Your task to perform on an android device: see tabs open on other devices in the chrome app Image 0: 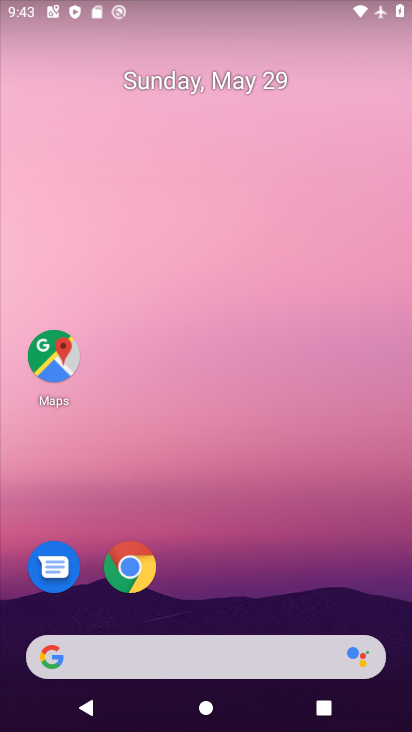
Step 0: click (129, 564)
Your task to perform on an android device: see tabs open on other devices in the chrome app Image 1: 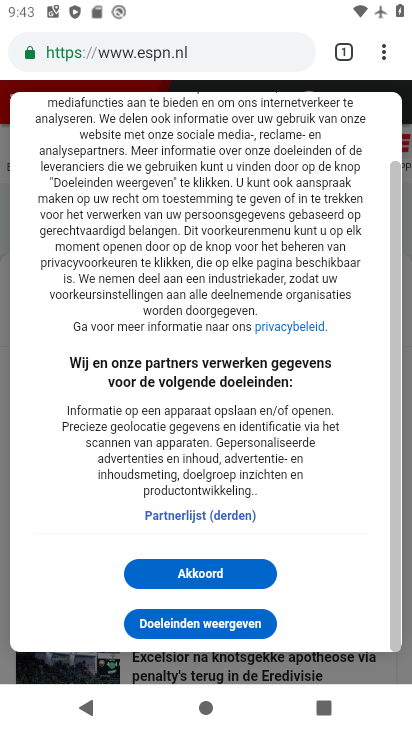
Step 1: click (383, 53)
Your task to perform on an android device: see tabs open on other devices in the chrome app Image 2: 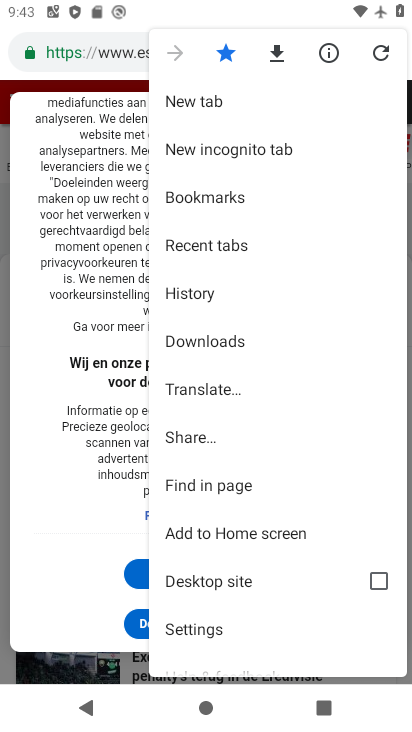
Step 2: click (211, 239)
Your task to perform on an android device: see tabs open on other devices in the chrome app Image 3: 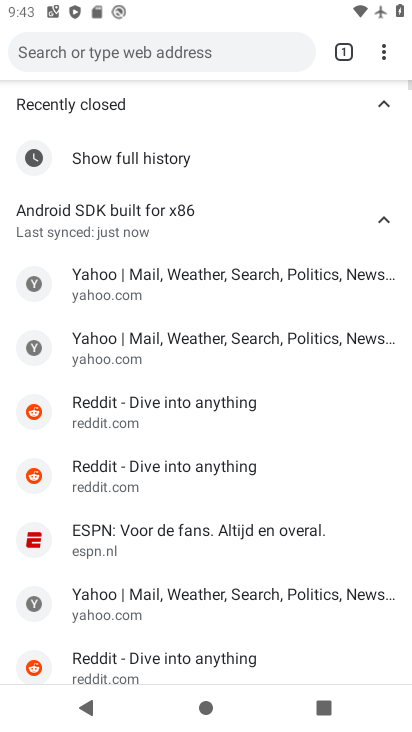
Step 3: task complete